Your task to perform on an android device: turn off javascript in the chrome app Image 0: 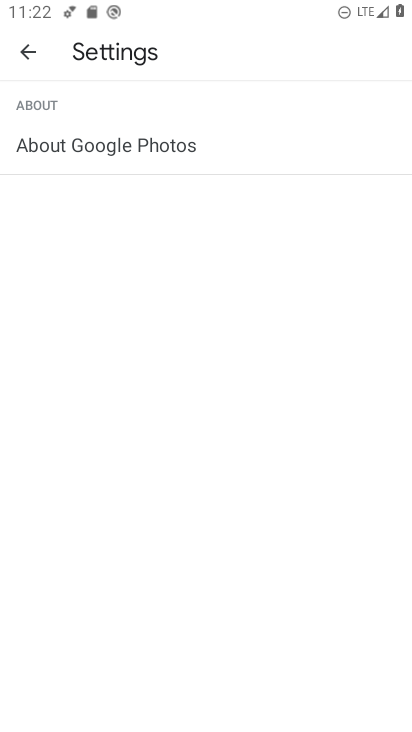
Step 0: press home button
Your task to perform on an android device: turn off javascript in the chrome app Image 1: 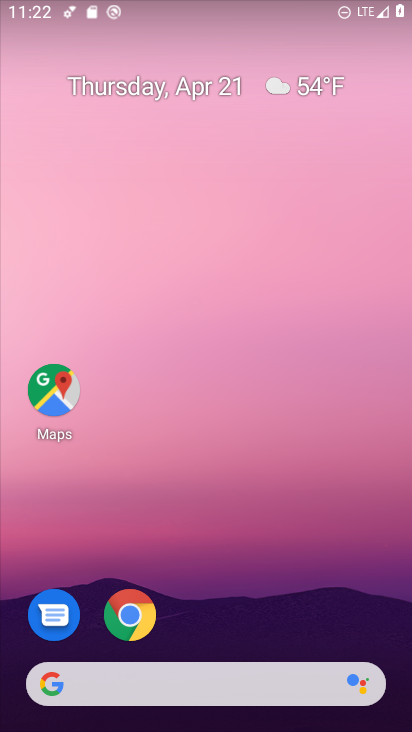
Step 1: click (120, 625)
Your task to perform on an android device: turn off javascript in the chrome app Image 2: 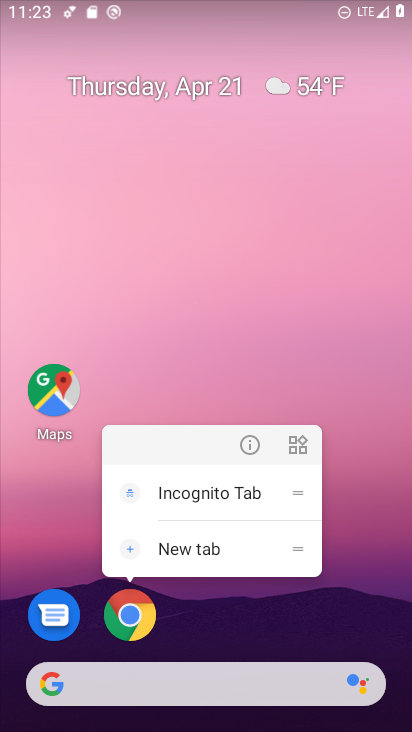
Step 2: click (116, 625)
Your task to perform on an android device: turn off javascript in the chrome app Image 3: 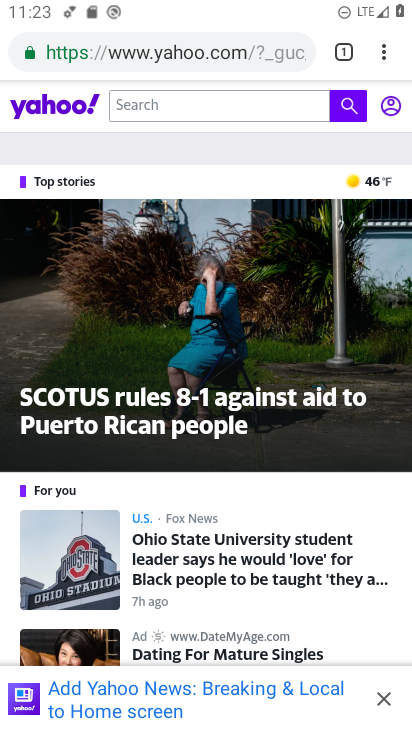
Step 3: click (382, 51)
Your task to perform on an android device: turn off javascript in the chrome app Image 4: 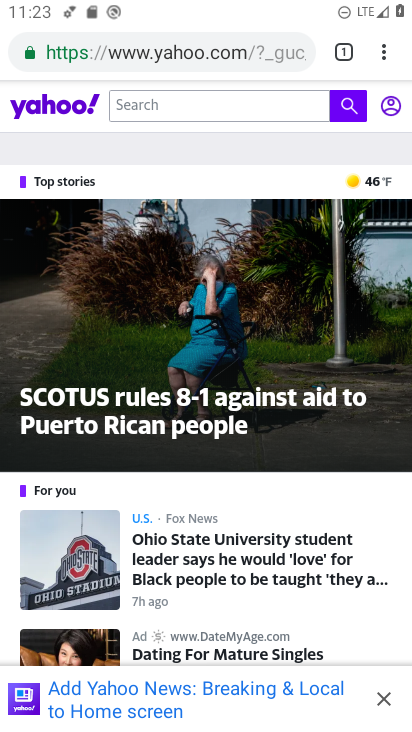
Step 4: click (381, 52)
Your task to perform on an android device: turn off javascript in the chrome app Image 5: 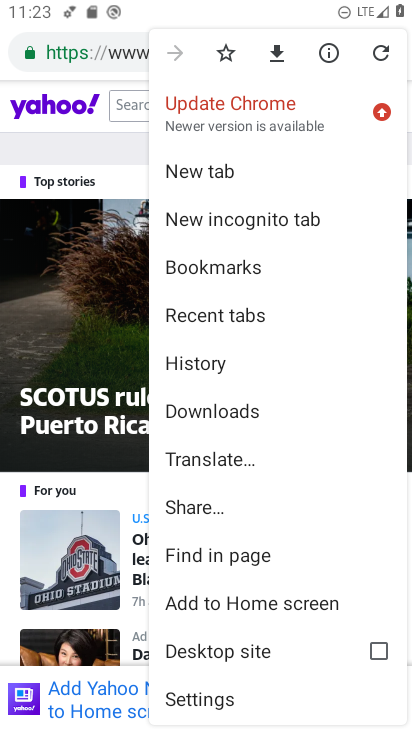
Step 5: click (222, 694)
Your task to perform on an android device: turn off javascript in the chrome app Image 6: 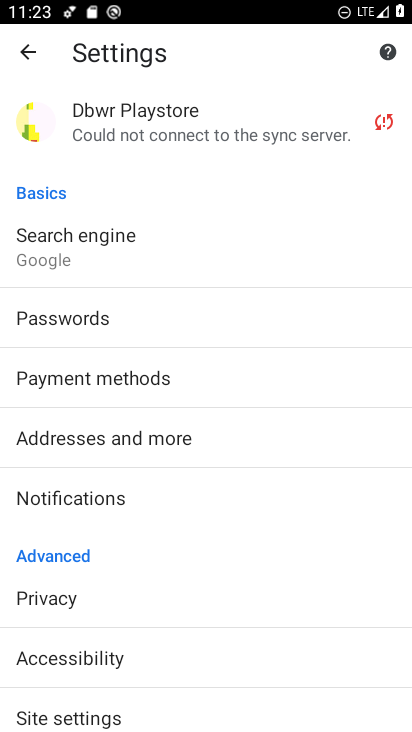
Step 6: click (140, 708)
Your task to perform on an android device: turn off javascript in the chrome app Image 7: 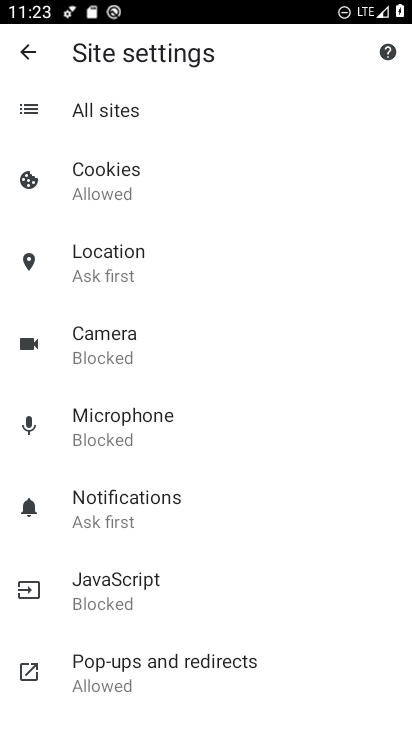
Step 7: click (100, 583)
Your task to perform on an android device: turn off javascript in the chrome app Image 8: 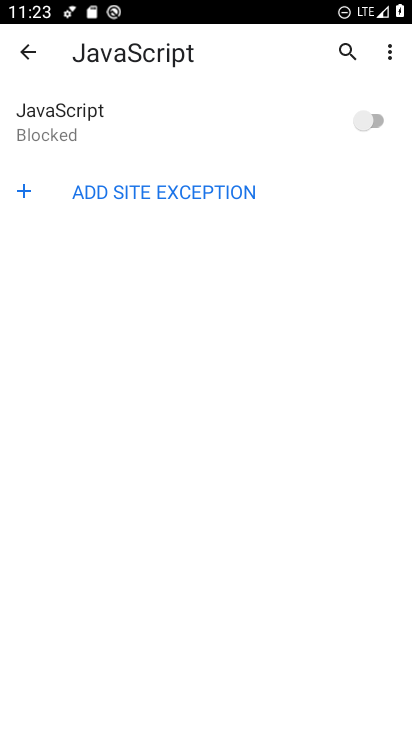
Step 8: task complete